Your task to perform on an android device: turn pop-ups off in chrome Image 0: 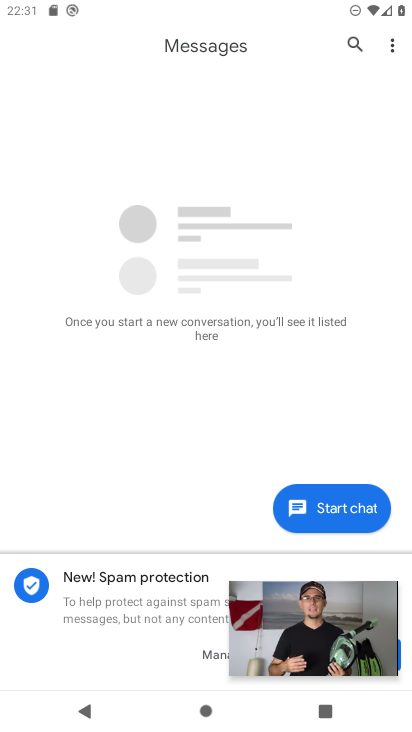
Step 0: press home button
Your task to perform on an android device: turn pop-ups off in chrome Image 1: 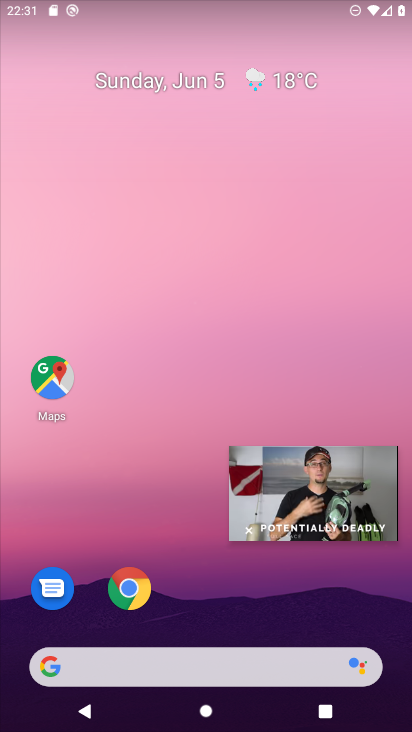
Step 1: drag from (224, 607) to (299, 138)
Your task to perform on an android device: turn pop-ups off in chrome Image 2: 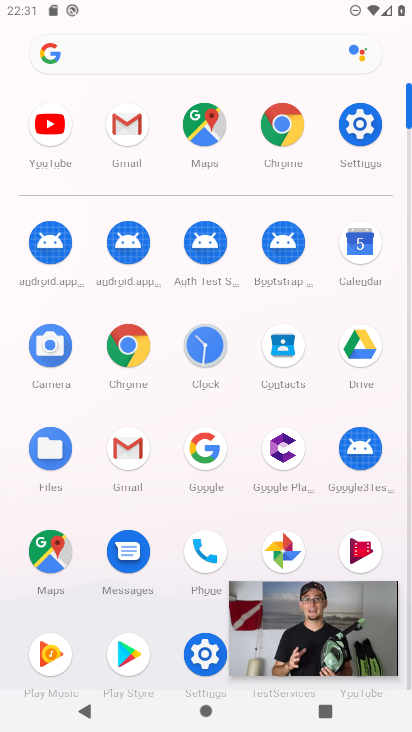
Step 2: click (130, 352)
Your task to perform on an android device: turn pop-ups off in chrome Image 3: 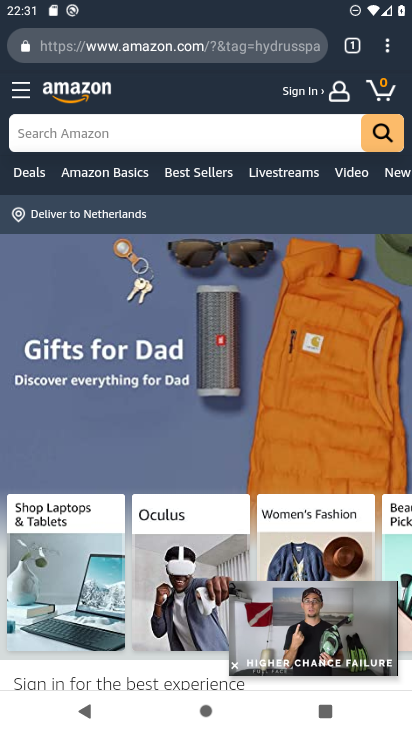
Step 3: click (388, 49)
Your task to perform on an android device: turn pop-ups off in chrome Image 4: 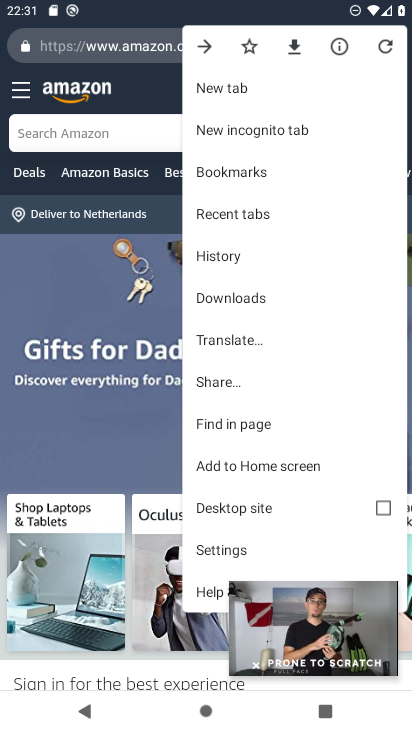
Step 4: click (248, 554)
Your task to perform on an android device: turn pop-ups off in chrome Image 5: 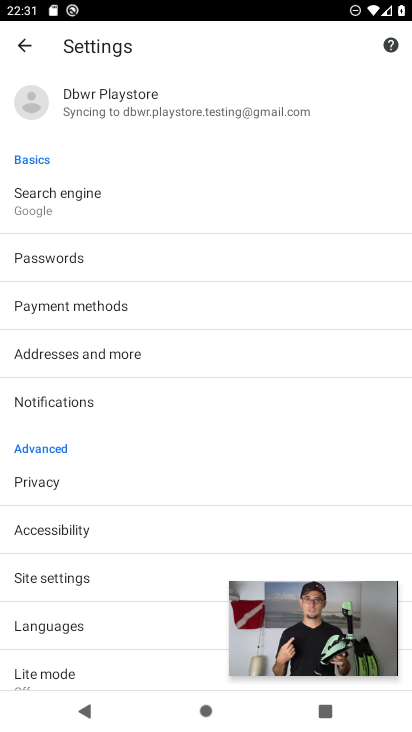
Step 5: drag from (158, 568) to (157, 400)
Your task to perform on an android device: turn pop-ups off in chrome Image 6: 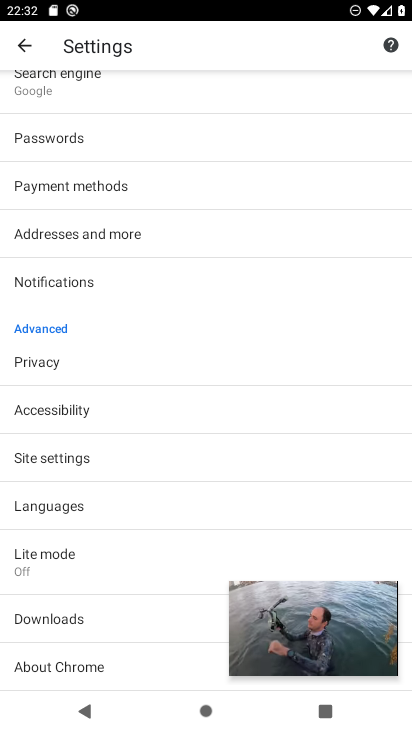
Step 6: click (158, 463)
Your task to perform on an android device: turn pop-ups off in chrome Image 7: 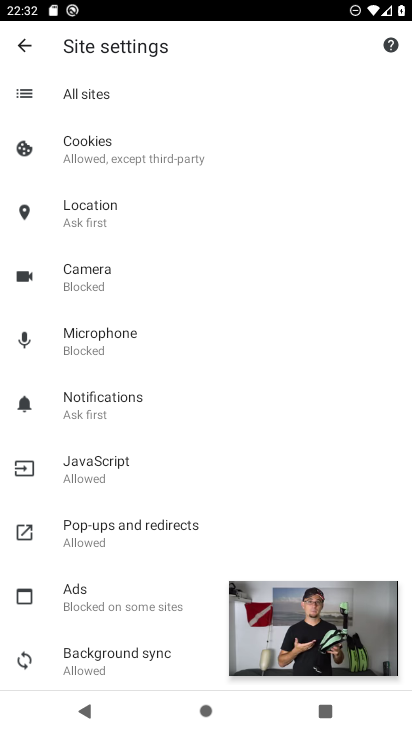
Step 7: drag from (231, 470) to (231, 337)
Your task to perform on an android device: turn pop-ups off in chrome Image 8: 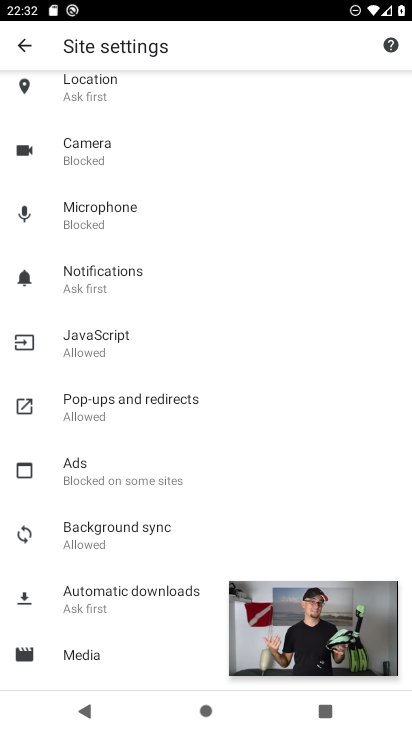
Step 8: drag from (224, 439) to (233, 320)
Your task to perform on an android device: turn pop-ups off in chrome Image 9: 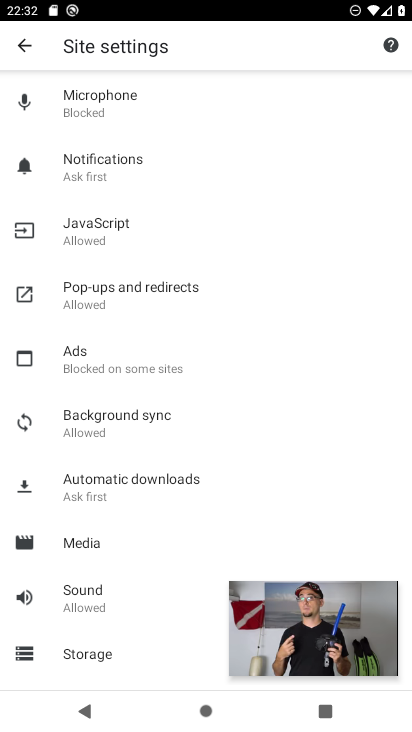
Step 9: click (135, 303)
Your task to perform on an android device: turn pop-ups off in chrome Image 10: 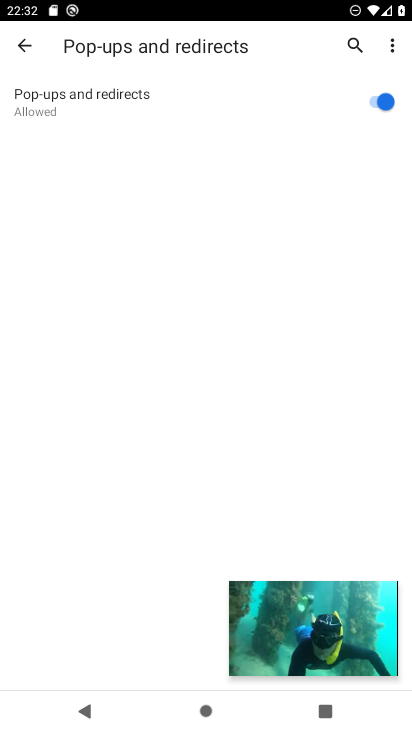
Step 10: click (364, 108)
Your task to perform on an android device: turn pop-ups off in chrome Image 11: 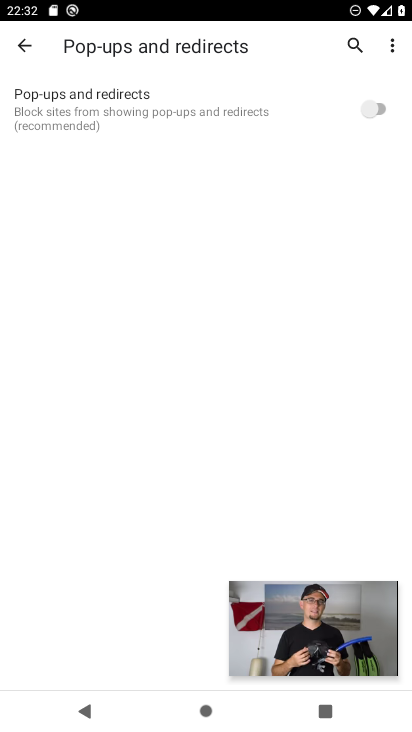
Step 11: task complete